Your task to perform on an android device: Open settings Image 0: 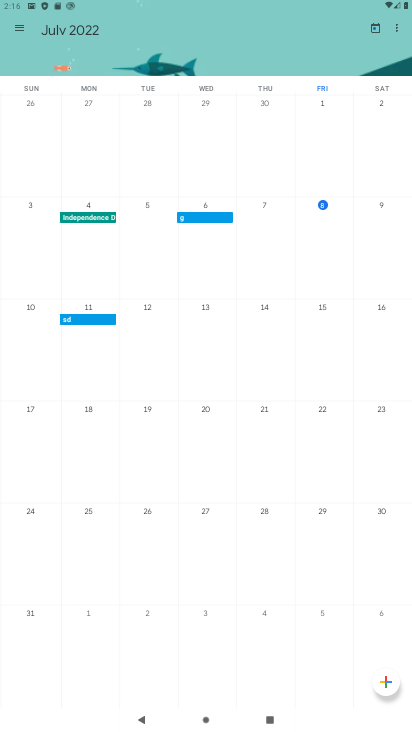
Step 0: press home button
Your task to perform on an android device: Open settings Image 1: 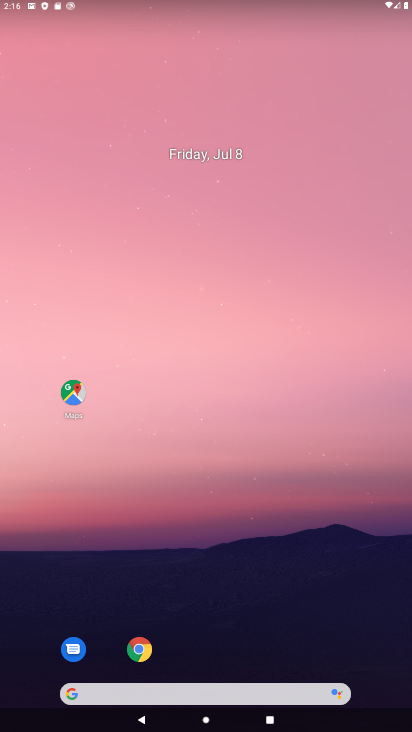
Step 1: drag from (324, 641) to (305, 330)
Your task to perform on an android device: Open settings Image 2: 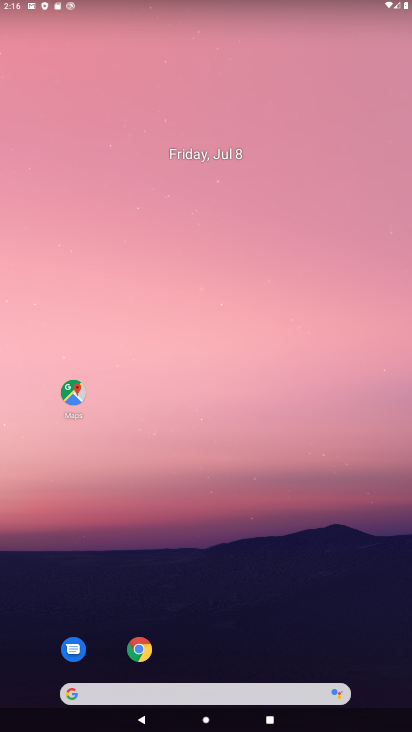
Step 2: drag from (330, 481) to (314, 171)
Your task to perform on an android device: Open settings Image 3: 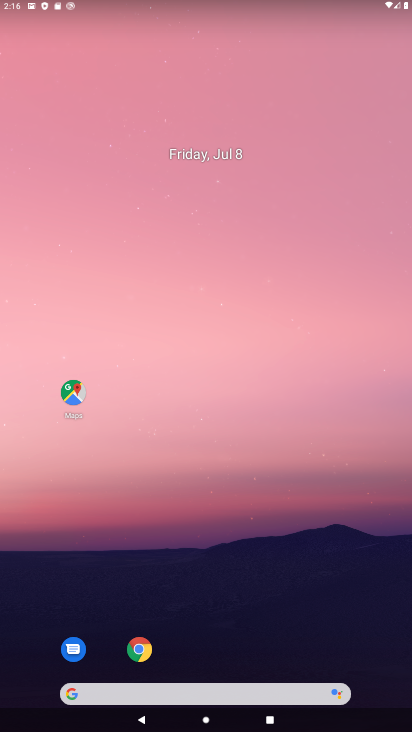
Step 3: drag from (354, 611) to (303, 165)
Your task to perform on an android device: Open settings Image 4: 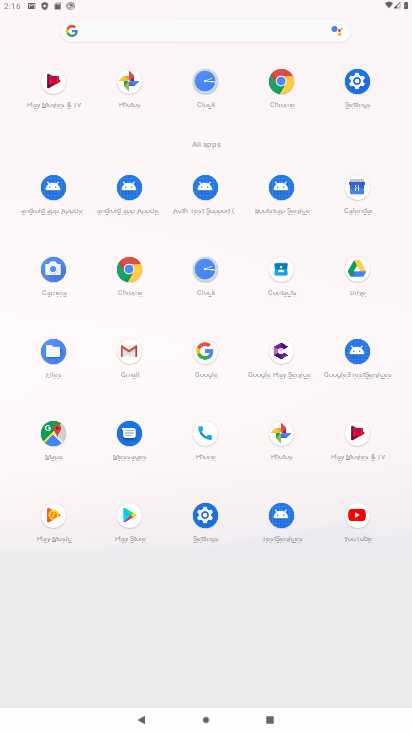
Step 4: click (359, 85)
Your task to perform on an android device: Open settings Image 5: 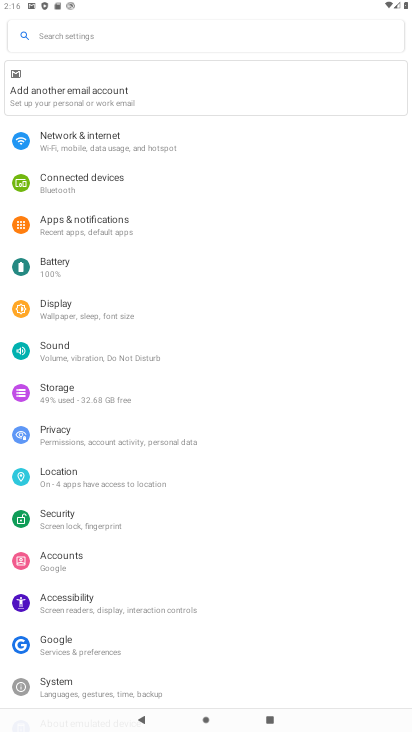
Step 5: task complete